Your task to perform on an android device: see sites visited before in the chrome app Image 0: 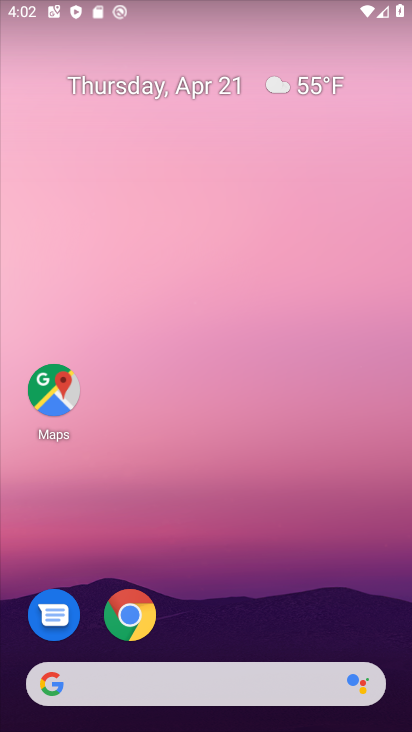
Step 0: drag from (310, 567) to (190, 9)
Your task to perform on an android device: see sites visited before in the chrome app Image 1: 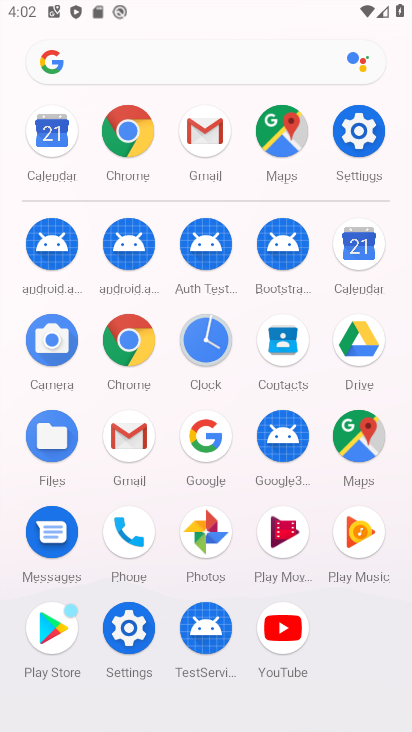
Step 1: click (128, 341)
Your task to perform on an android device: see sites visited before in the chrome app Image 2: 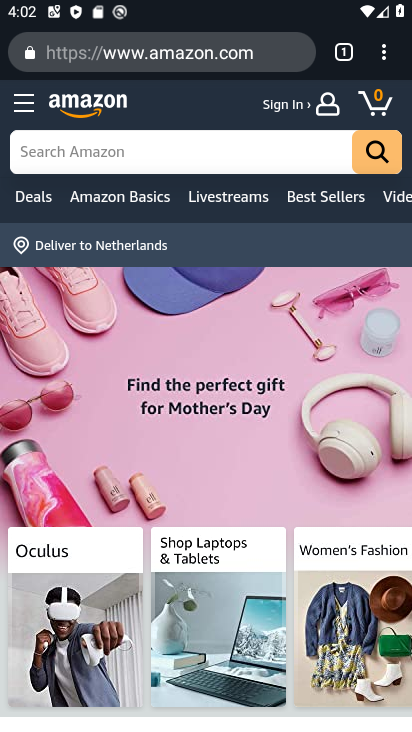
Step 2: task complete